Your task to perform on an android device: Open notification settings Image 0: 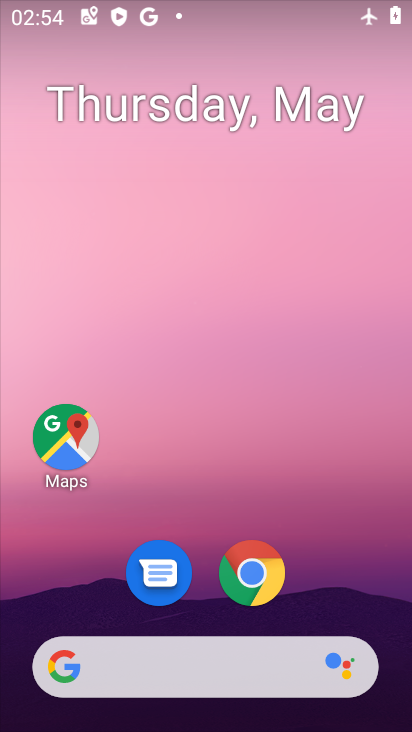
Step 0: drag from (301, 552) to (276, 220)
Your task to perform on an android device: Open notification settings Image 1: 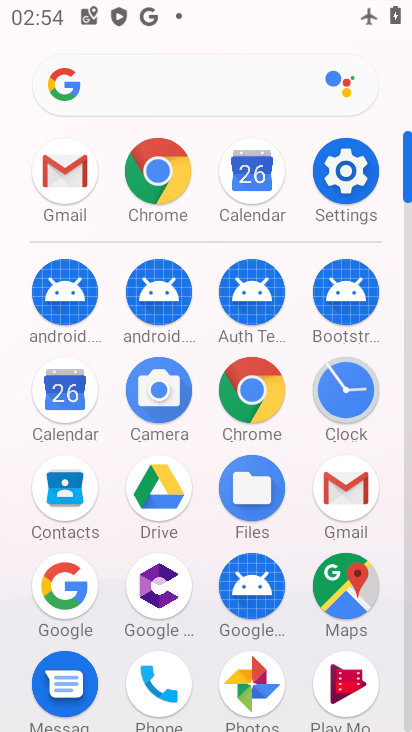
Step 1: click (351, 163)
Your task to perform on an android device: Open notification settings Image 2: 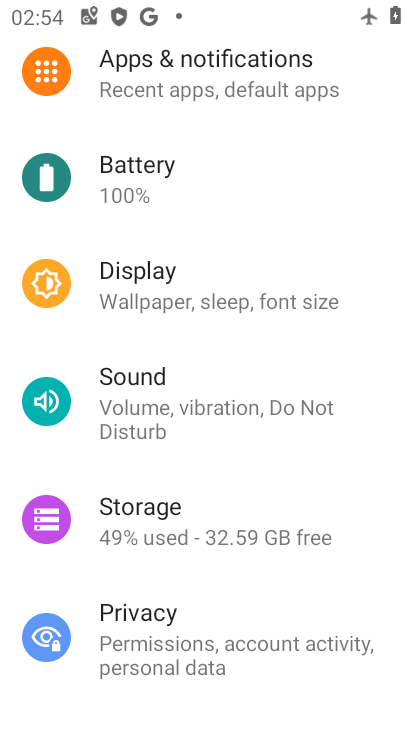
Step 2: click (223, 70)
Your task to perform on an android device: Open notification settings Image 3: 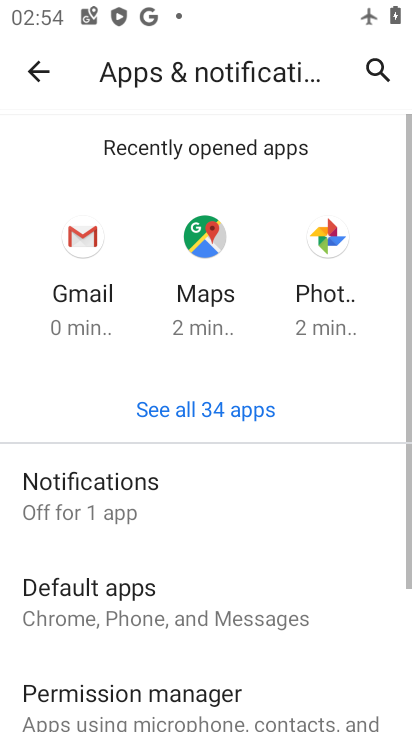
Step 3: click (146, 486)
Your task to perform on an android device: Open notification settings Image 4: 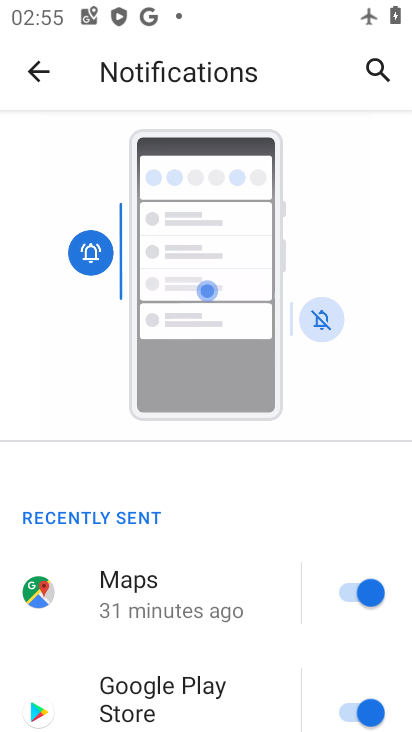
Step 4: task complete